Your task to perform on an android device: toggle pop-ups in chrome Image 0: 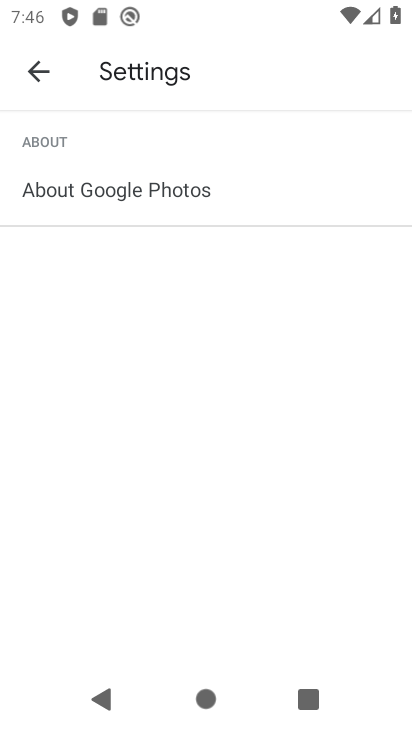
Step 0: press home button
Your task to perform on an android device: toggle pop-ups in chrome Image 1: 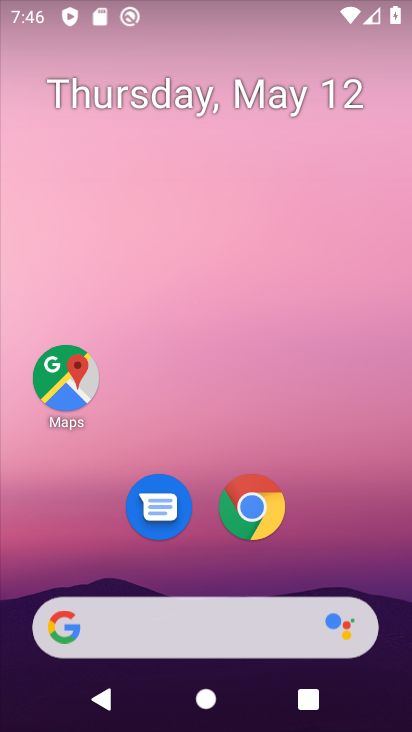
Step 1: click (264, 503)
Your task to perform on an android device: toggle pop-ups in chrome Image 2: 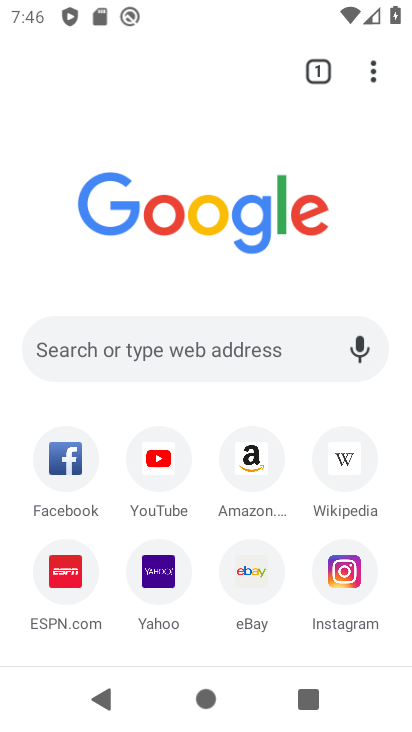
Step 2: drag from (376, 55) to (127, 501)
Your task to perform on an android device: toggle pop-ups in chrome Image 3: 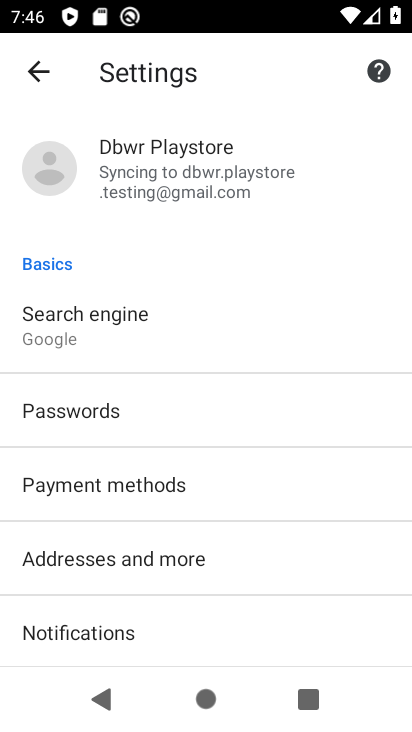
Step 3: drag from (129, 564) to (181, 210)
Your task to perform on an android device: toggle pop-ups in chrome Image 4: 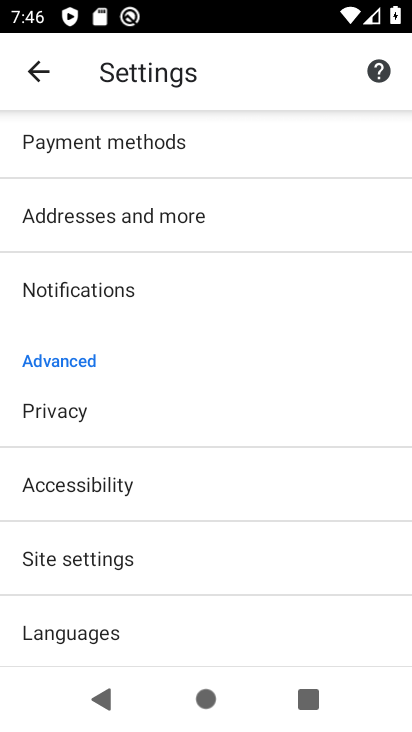
Step 4: drag from (161, 580) to (164, 320)
Your task to perform on an android device: toggle pop-ups in chrome Image 5: 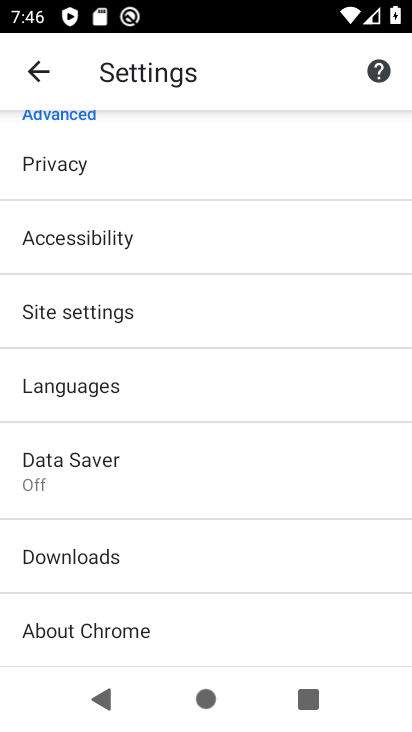
Step 5: click (121, 314)
Your task to perform on an android device: toggle pop-ups in chrome Image 6: 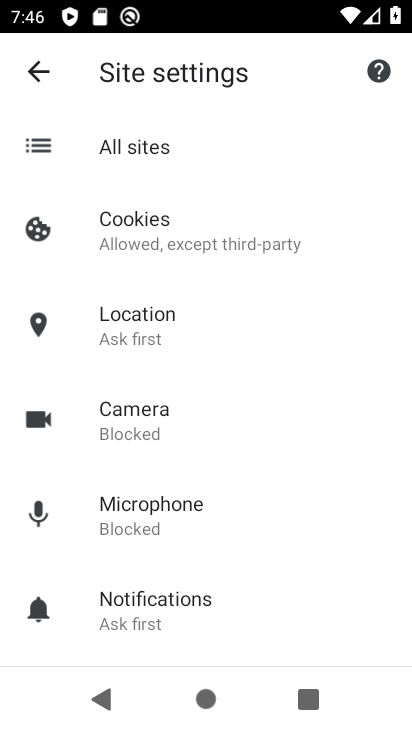
Step 6: drag from (182, 517) to (187, 256)
Your task to perform on an android device: toggle pop-ups in chrome Image 7: 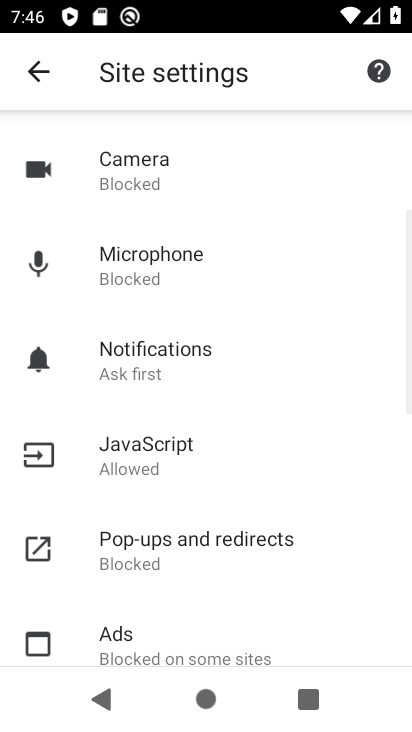
Step 7: click (187, 533)
Your task to perform on an android device: toggle pop-ups in chrome Image 8: 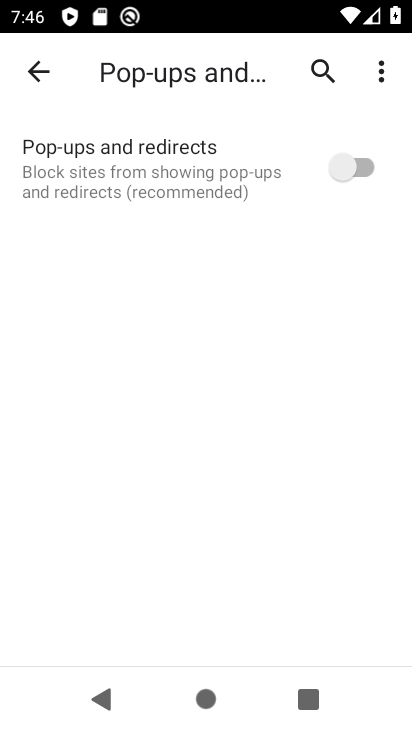
Step 8: click (358, 165)
Your task to perform on an android device: toggle pop-ups in chrome Image 9: 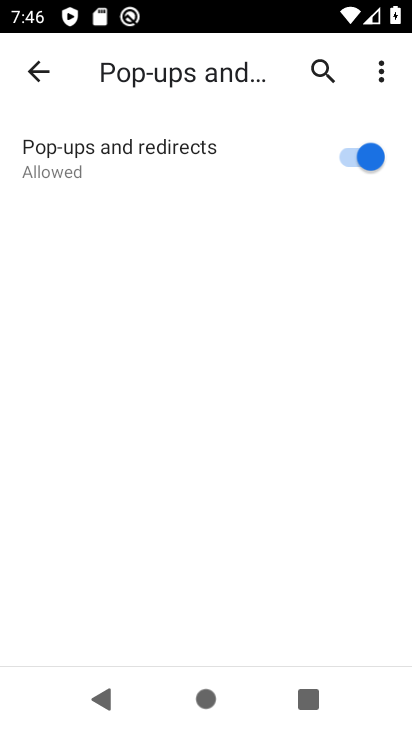
Step 9: task complete